Your task to perform on an android device: Go to CNN.com Image 0: 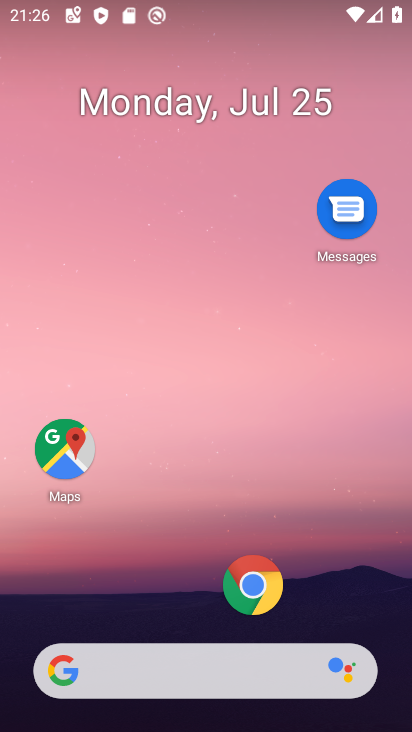
Step 0: click (260, 589)
Your task to perform on an android device: Go to CNN.com Image 1: 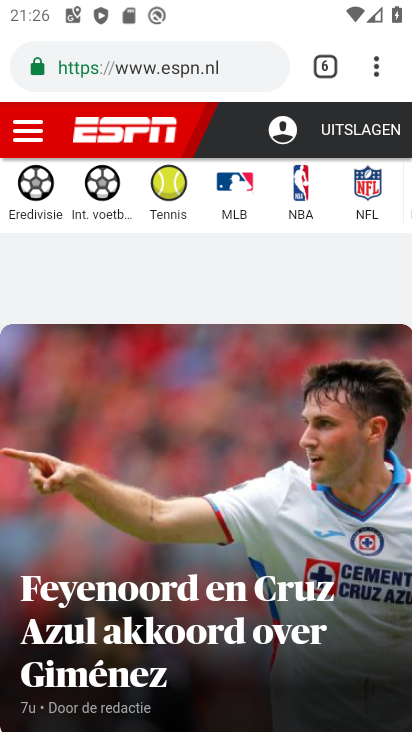
Step 1: drag from (373, 65) to (191, 132)
Your task to perform on an android device: Go to CNN.com Image 2: 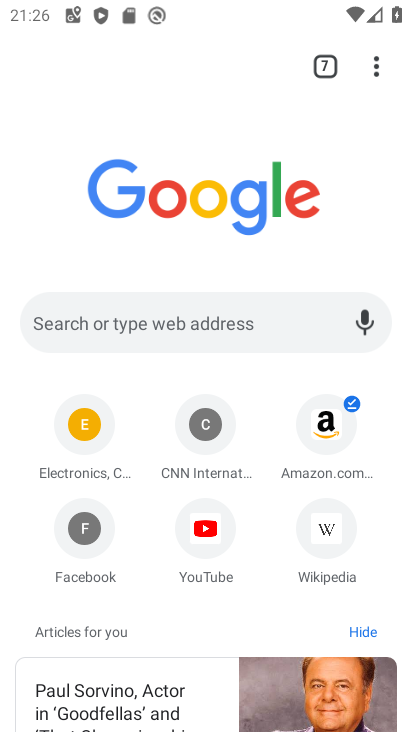
Step 2: click (206, 428)
Your task to perform on an android device: Go to CNN.com Image 3: 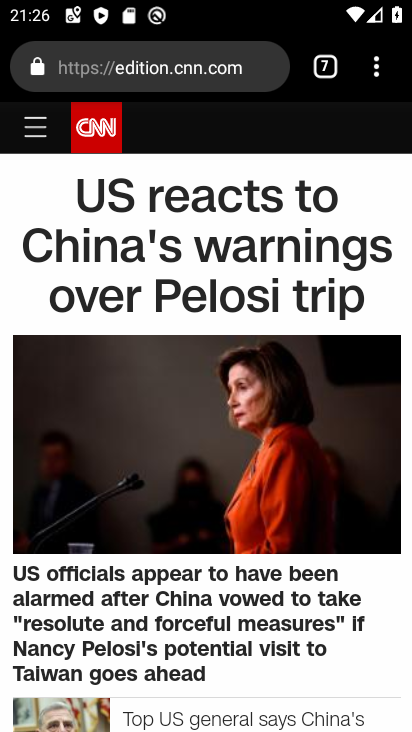
Step 3: task complete